Your task to perform on an android device: toggle priority inbox in the gmail app Image 0: 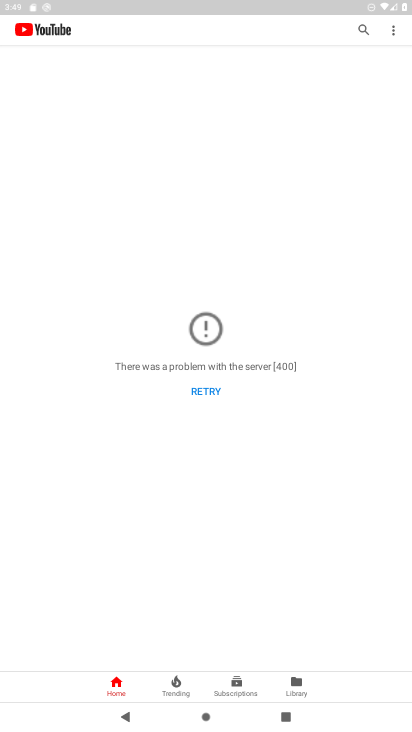
Step 0: press home button
Your task to perform on an android device: toggle priority inbox in the gmail app Image 1: 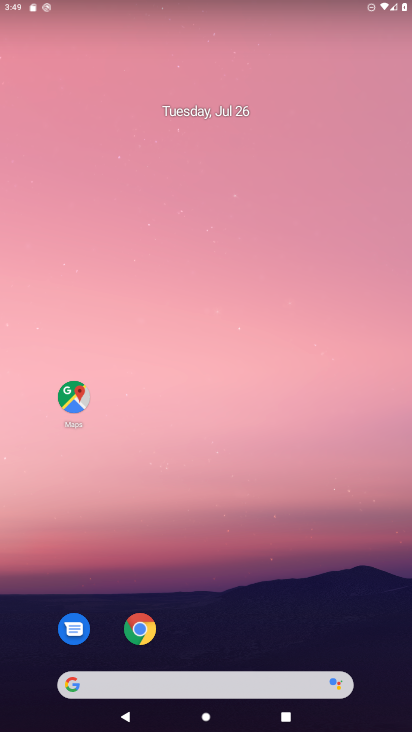
Step 1: drag from (226, 642) to (191, 31)
Your task to perform on an android device: toggle priority inbox in the gmail app Image 2: 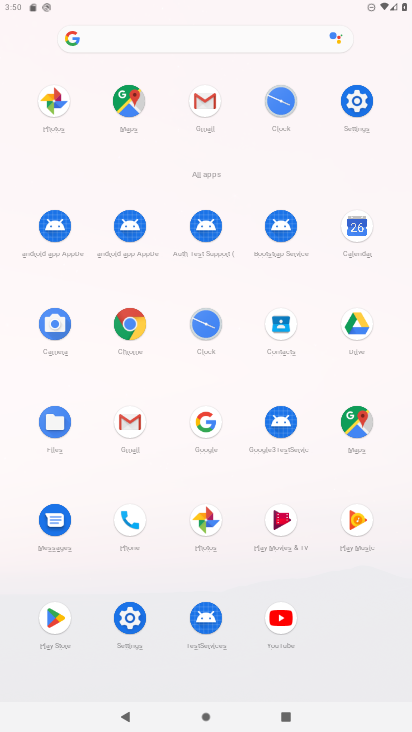
Step 2: click (209, 93)
Your task to perform on an android device: toggle priority inbox in the gmail app Image 3: 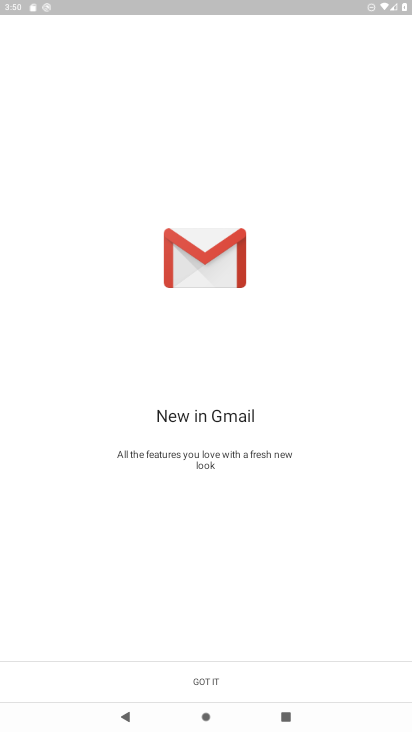
Step 3: click (145, 684)
Your task to perform on an android device: toggle priority inbox in the gmail app Image 4: 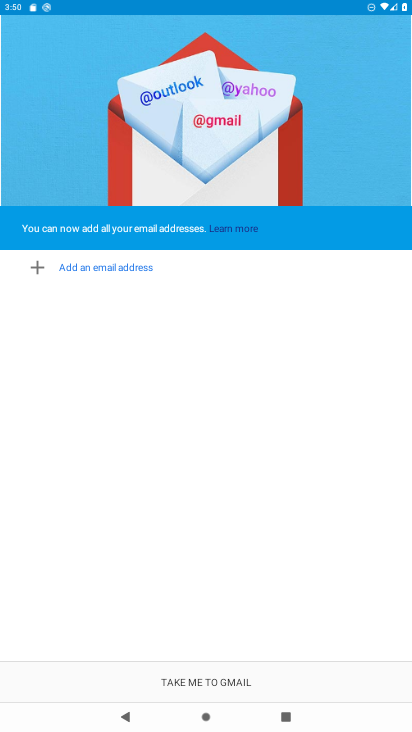
Step 4: click (145, 684)
Your task to perform on an android device: toggle priority inbox in the gmail app Image 5: 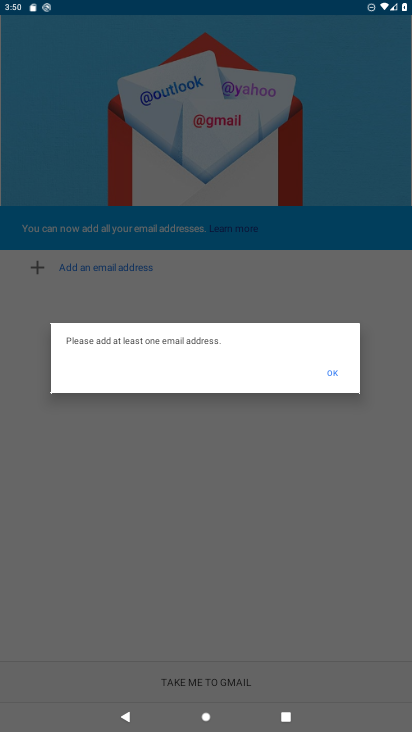
Step 5: click (344, 375)
Your task to perform on an android device: toggle priority inbox in the gmail app Image 6: 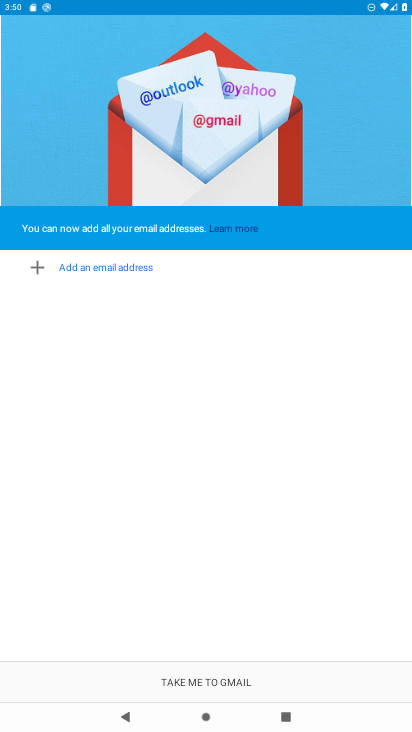
Step 6: click (308, 679)
Your task to perform on an android device: toggle priority inbox in the gmail app Image 7: 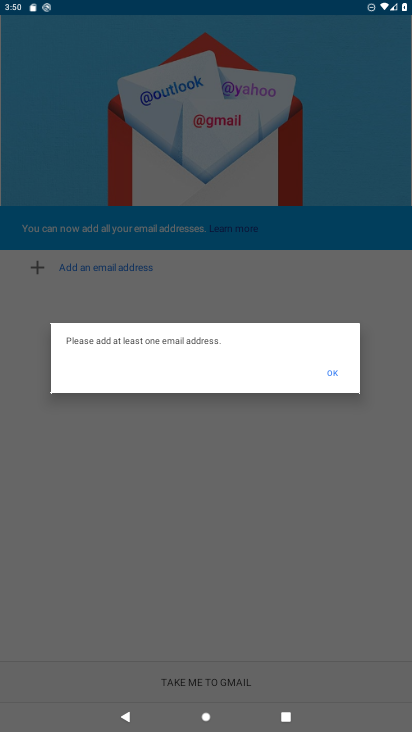
Step 7: click (342, 366)
Your task to perform on an android device: toggle priority inbox in the gmail app Image 8: 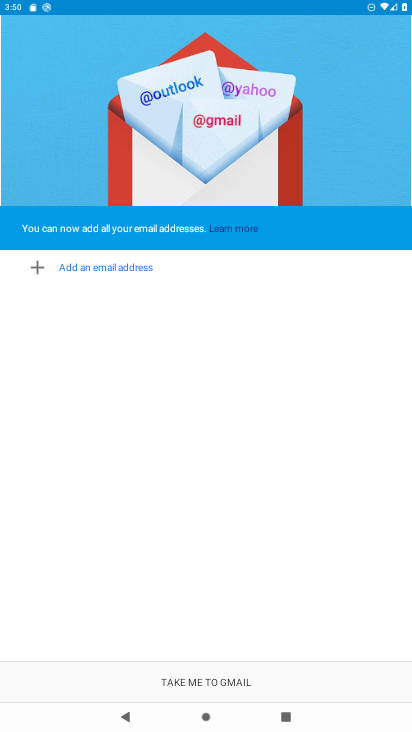
Step 8: click (219, 684)
Your task to perform on an android device: toggle priority inbox in the gmail app Image 9: 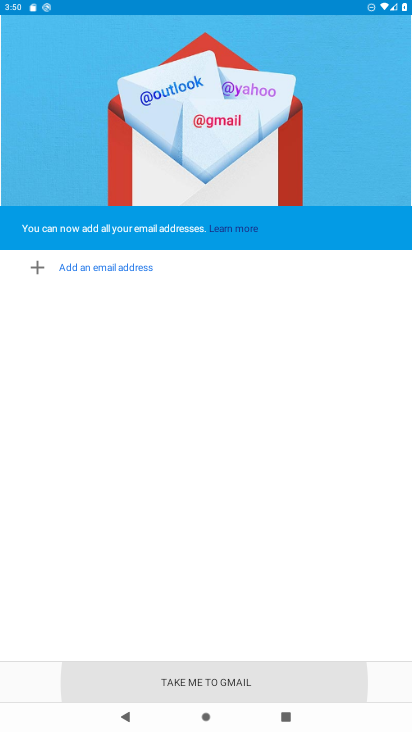
Step 9: click (219, 684)
Your task to perform on an android device: toggle priority inbox in the gmail app Image 10: 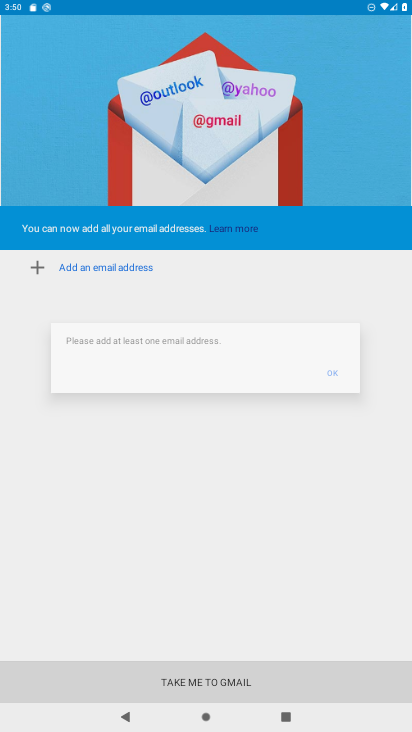
Step 10: click (219, 684)
Your task to perform on an android device: toggle priority inbox in the gmail app Image 11: 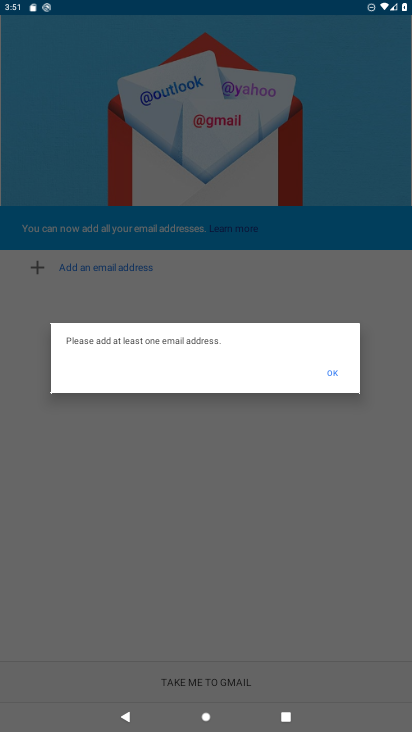
Step 11: task complete